Your task to perform on an android device: turn off wifi Image 0: 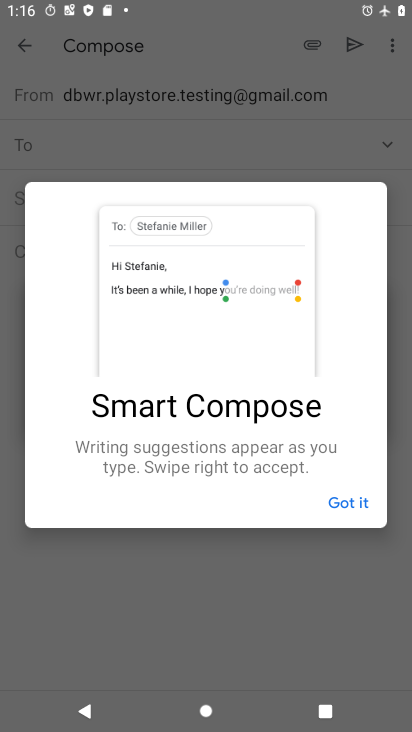
Step 0: press home button
Your task to perform on an android device: turn off wifi Image 1: 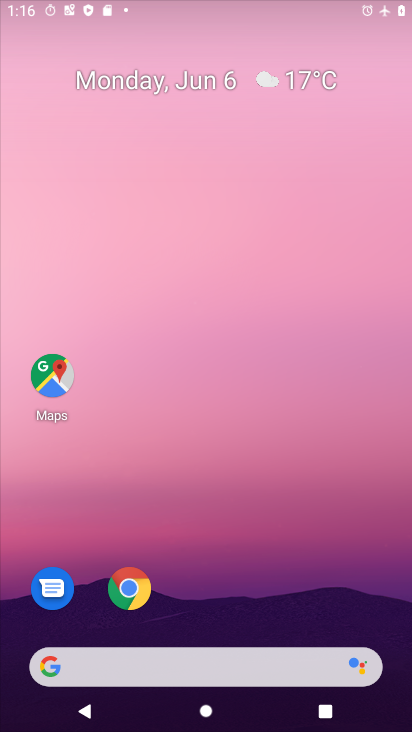
Step 1: drag from (180, 217) to (156, 4)
Your task to perform on an android device: turn off wifi Image 2: 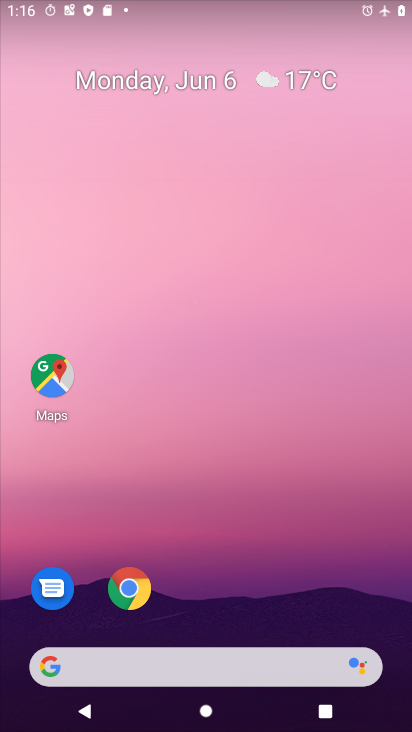
Step 2: drag from (253, 450) to (247, 30)
Your task to perform on an android device: turn off wifi Image 3: 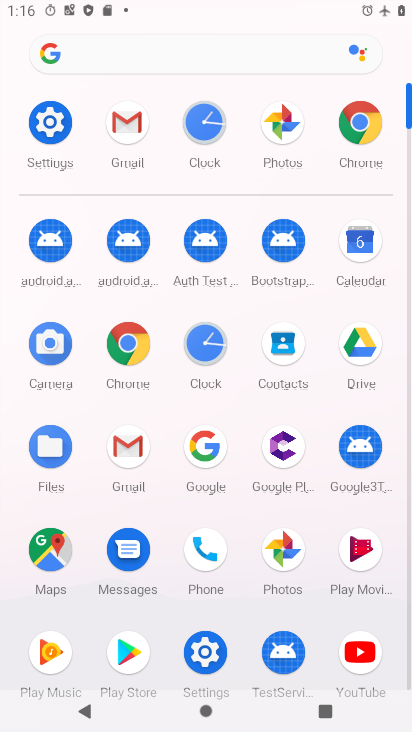
Step 3: click (45, 130)
Your task to perform on an android device: turn off wifi Image 4: 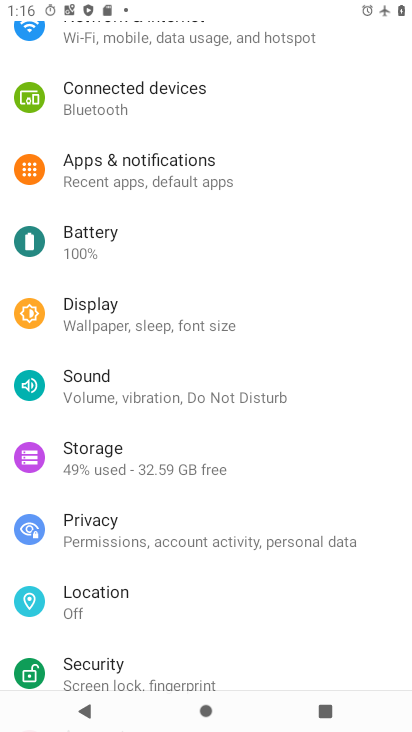
Step 4: drag from (195, 95) to (229, 457)
Your task to perform on an android device: turn off wifi Image 5: 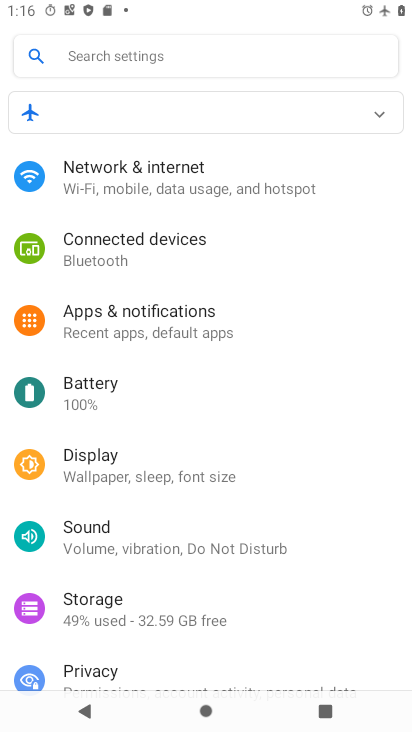
Step 5: click (182, 185)
Your task to perform on an android device: turn off wifi Image 6: 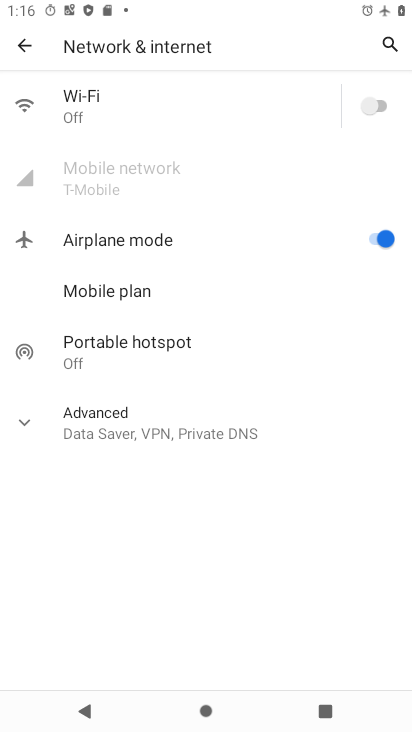
Step 6: task complete